Your task to perform on an android device: Open calendar and show me the fourth week of next month Image 0: 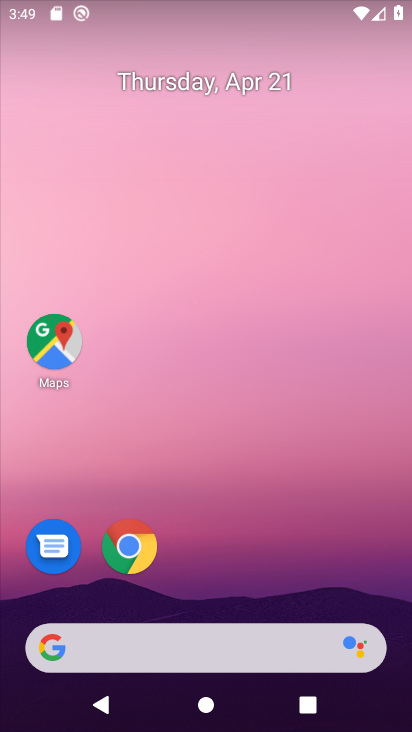
Step 0: click (238, 77)
Your task to perform on an android device: Open calendar and show me the fourth week of next month Image 1: 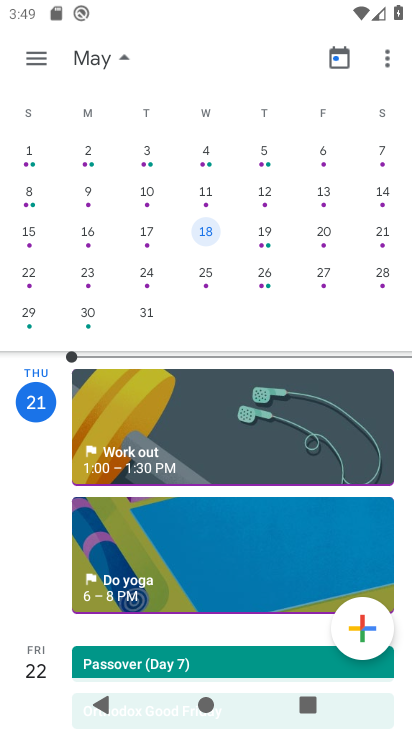
Step 1: click (268, 276)
Your task to perform on an android device: Open calendar and show me the fourth week of next month Image 2: 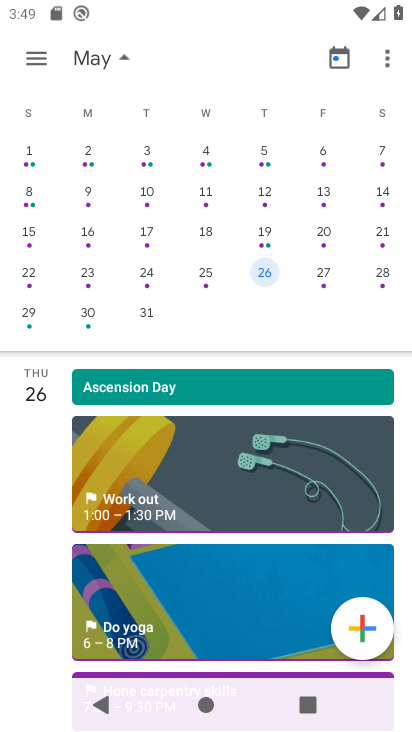
Step 2: task complete